Your task to perform on an android device: Go to CNN.com Image 0: 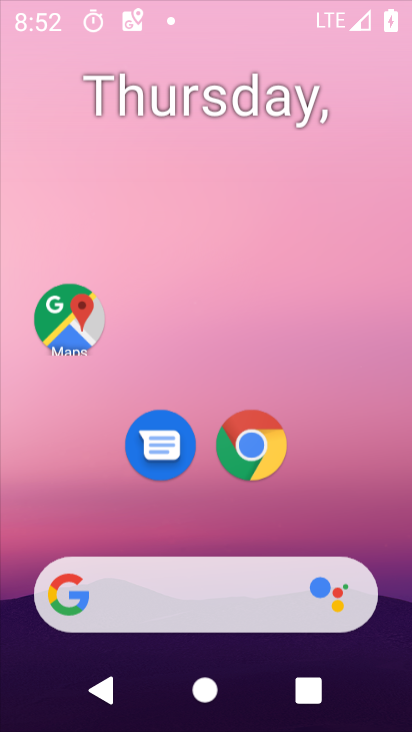
Step 0: drag from (200, 517) to (209, 10)
Your task to perform on an android device: Go to CNN.com Image 1: 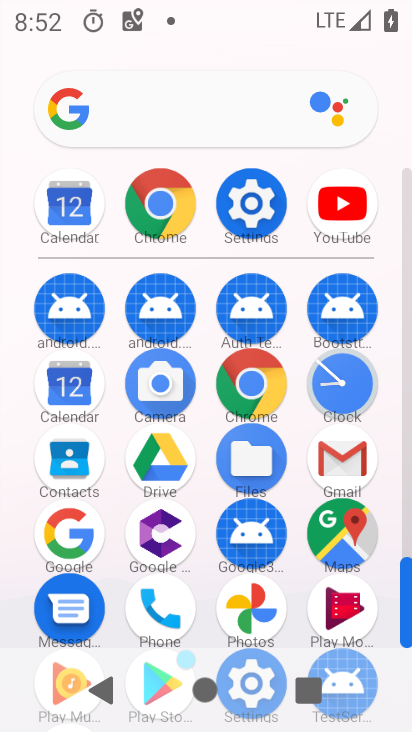
Step 1: click (238, 103)
Your task to perform on an android device: Go to CNN.com Image 2: 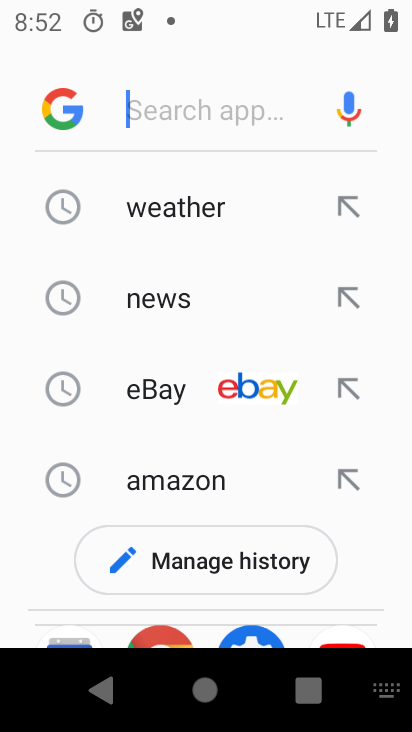
Step 2: type "cnn"
Your task to perform on an android device: Go to CNN.com Image 3: 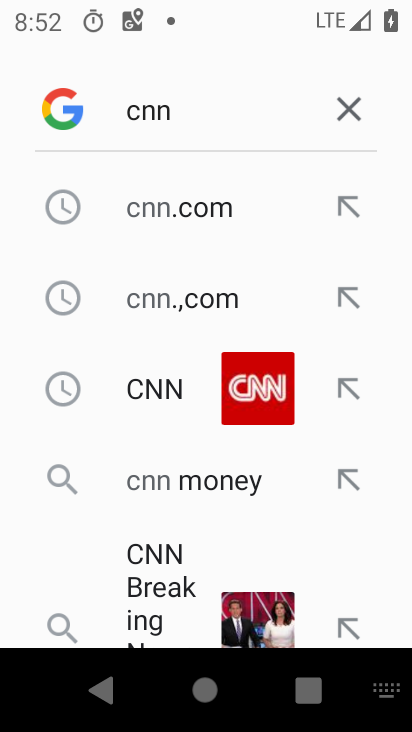
Step 3: click (174, 198)
Your task to perform on an android device: Go to CNN.com Image 4: 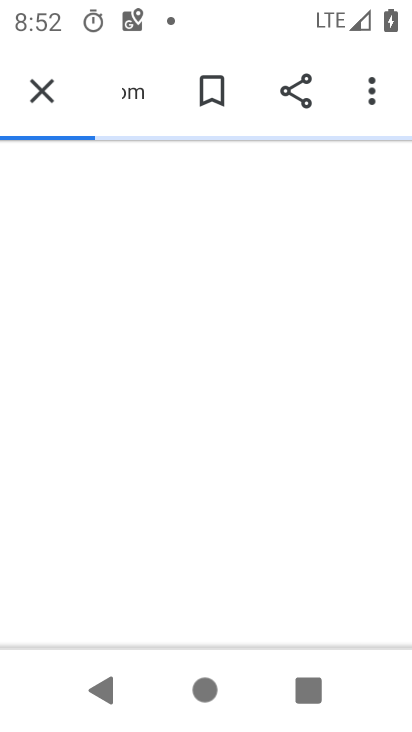
Step 4: task complete